Your task to perform on an android device: Search for the best rated running shoes on Nike.com Image 0: 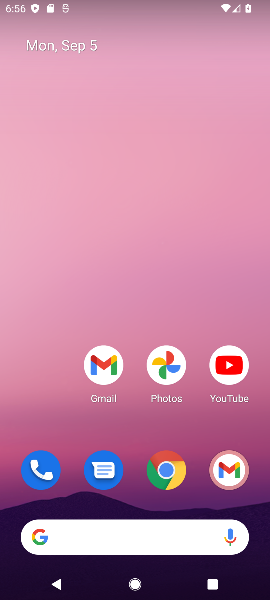
Step 0: click (131, 537)
Your task to perform on an android device: Search for the best rated running shoes on Nike.com Image 1: 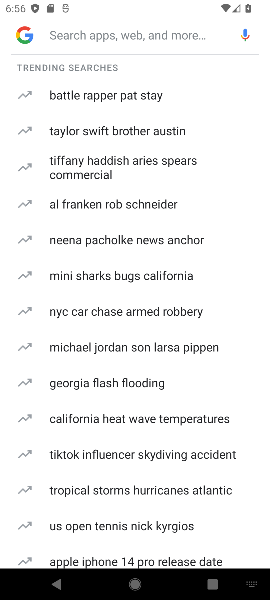
Step 1: type "nike.com"
Your task to perform on an android device: Search for the best rated running shoes on Nike.com Image 2: 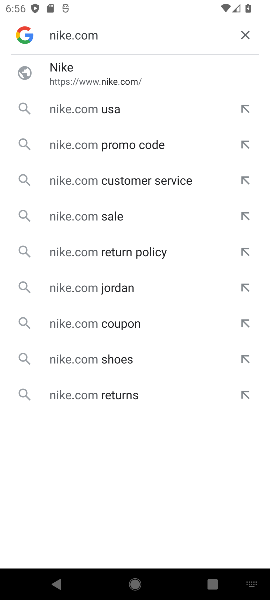
Step 2: click (55, 73)
Your task to perform on an android device: Search for the best rated running shoes on Nike.com Image 3: 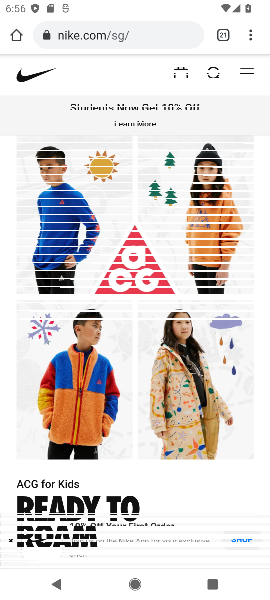
Step 3: click (215, 72)
Your task to perform on an android device: Search for the best rated running shoes on Nike.com Image 4: 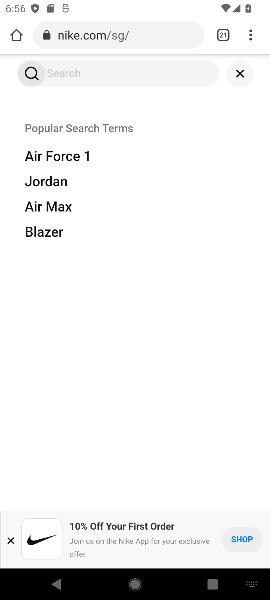
Step 4: type "best rated running shoes"
Your task to perform on an android device: Search for the best rated running shoes on Nike.com Image 5: 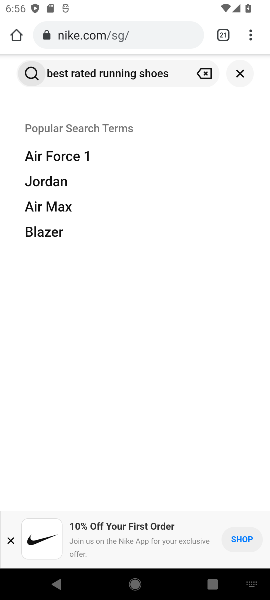
Step 5: click (31, 66)
Your task to perform on an android device: Search for the best rated running shoes on Nike.com Image 6: 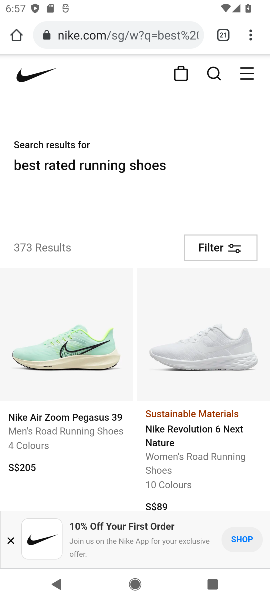
Step 6: task complete